Your task to perform on an android device: read, delete, or share a saved page in the chrome app Image 0: 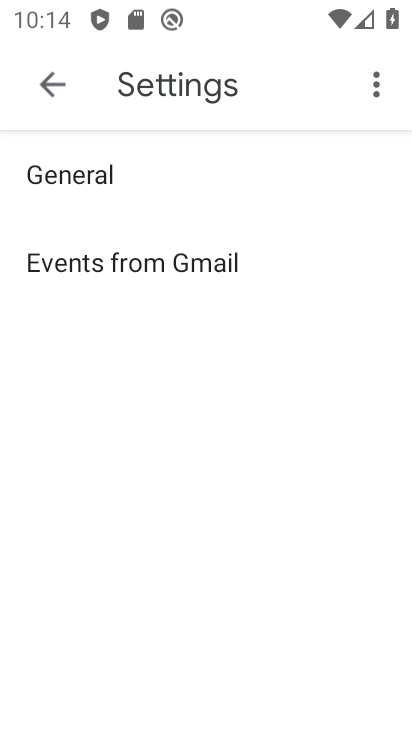
Step 0: press home button
Your task to perform on an android device: read, delete, or share a saved page in the chrome app Image 1: 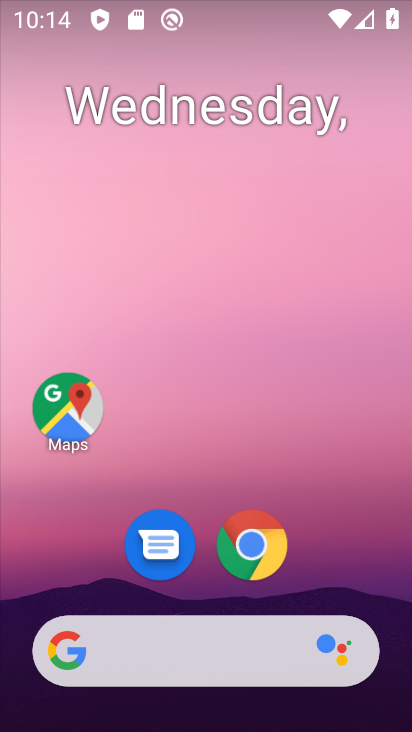
Step 1: click (248, 524)
Your task to perform on an android device: read, delete, or share a saved page in the chrome app Image 2: 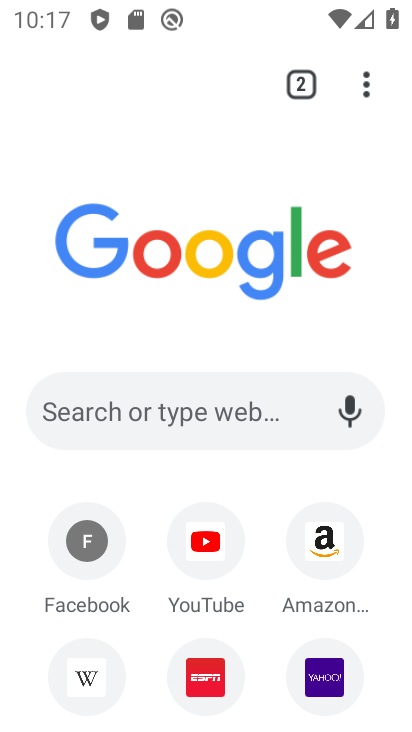
Step 2: click (370, 79)
Your task to perform on an android device: read, delete, or share a saved page in the chrome app Image 3: 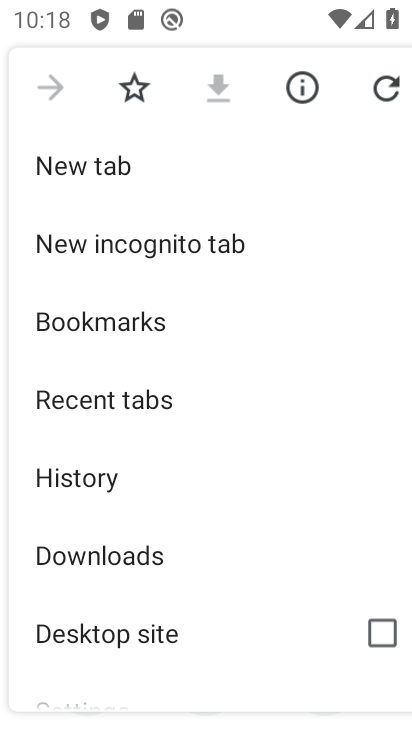
Step 3: click (231, 546)
Your task to perform on an android device: read, delete, or share a saved page in the chrome app Image 4: 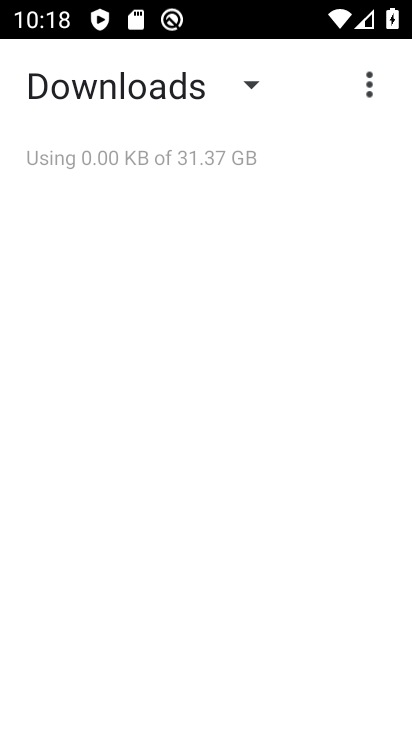
Step 4: task complete